Your task to perform on an android device: turn on bluetooth scan Image 0: 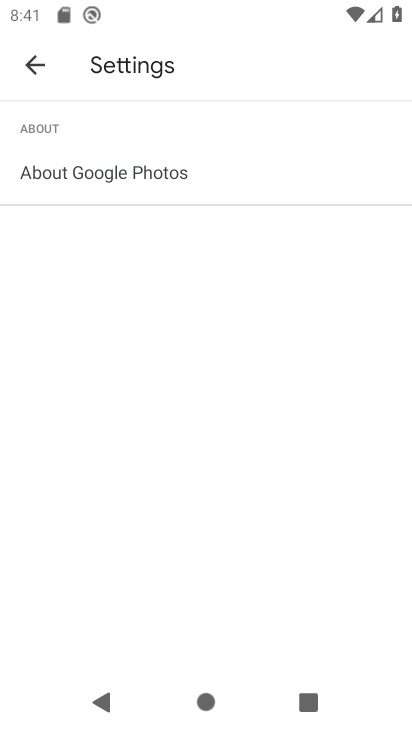
Step 0: press home button
Your task to perform on an android device: turn on bluetooth scan Image 1: 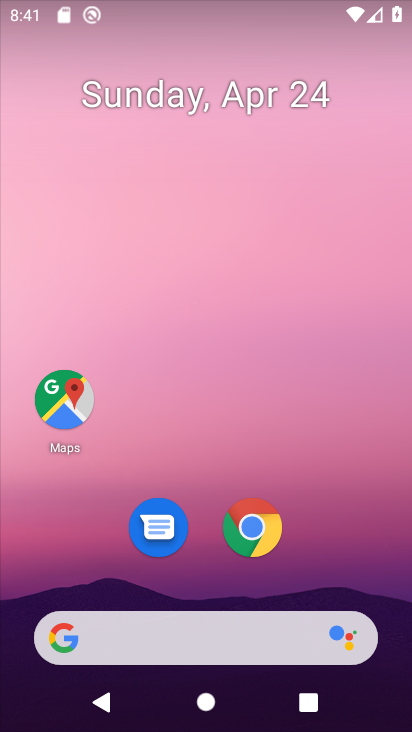
Step 1: drag from (393, 629) to (305, 201)
Your task to perform on an android device: turn on bluetooth scan Image 2: 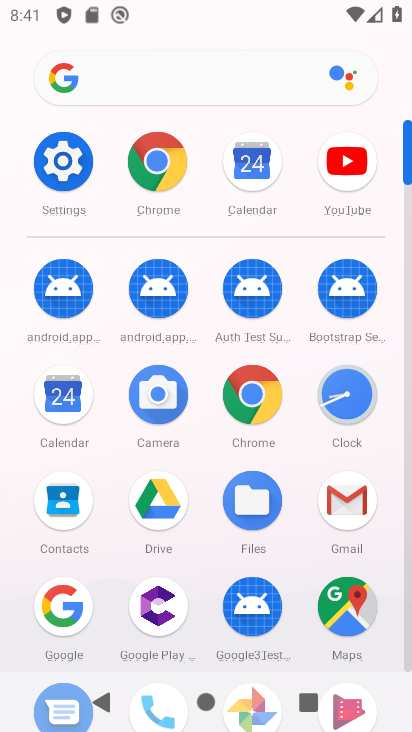
Step 2: click (66, 174)
Your task to perform on an android device: turn on bluetooth scan Image 3: 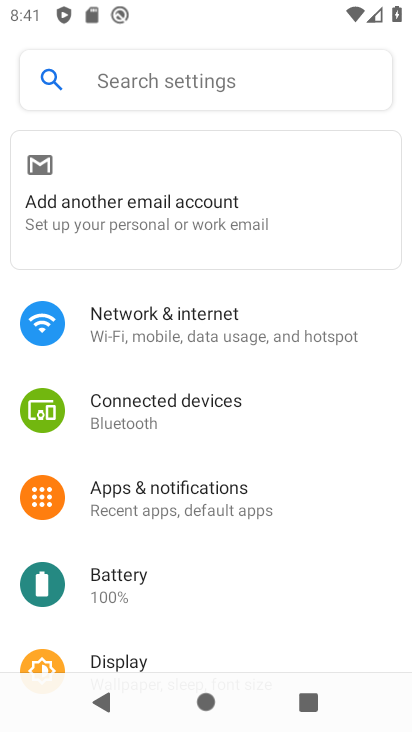
Step 3: drag from (166, 614) to (184, 213)
Your task to perform on an android device: turn on bluetooth scan Image 4: 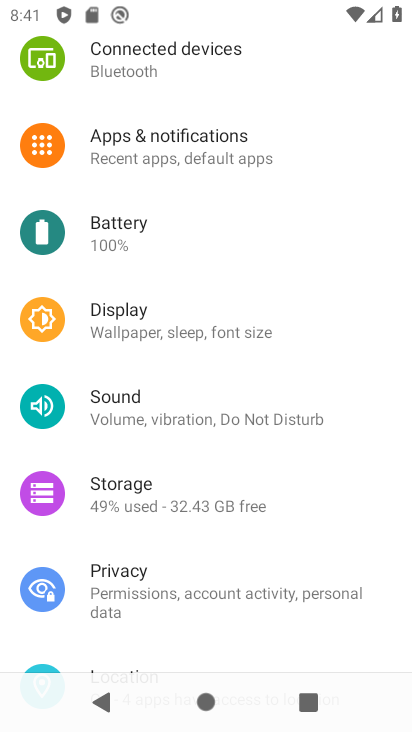
Step 4: drag from (200, 582) to (200, 230)
Your task to perform on an android device: turn on bluetooth scan Image 5: 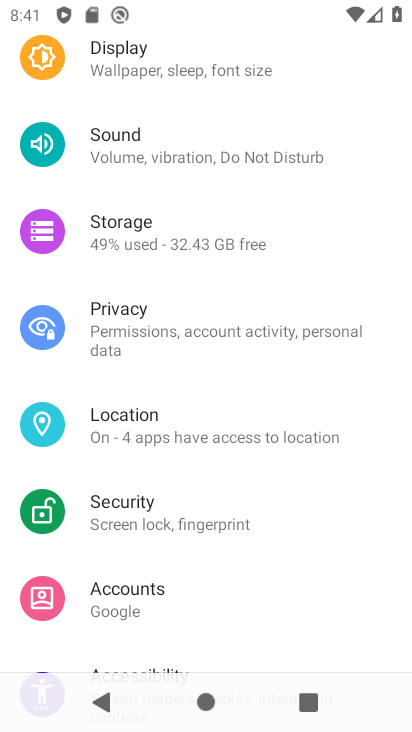
Step 5: click (150, 443)
Your task to perform on an android device: turn on bluetooth scan Image 6: 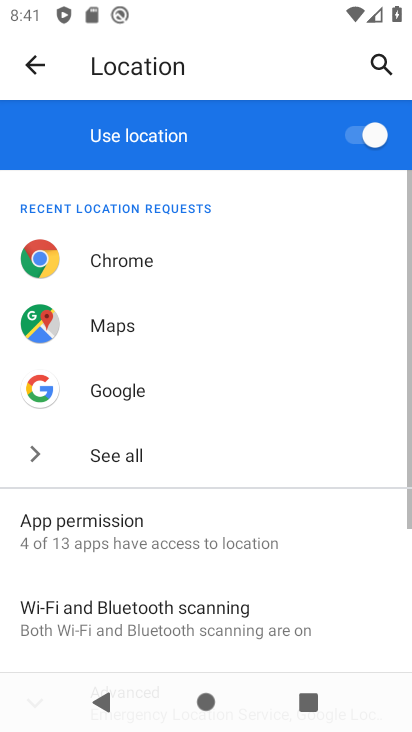
Step 6: click (186, 625)
Your task to perform on an android device: turn on bluetooth scan Image 7: 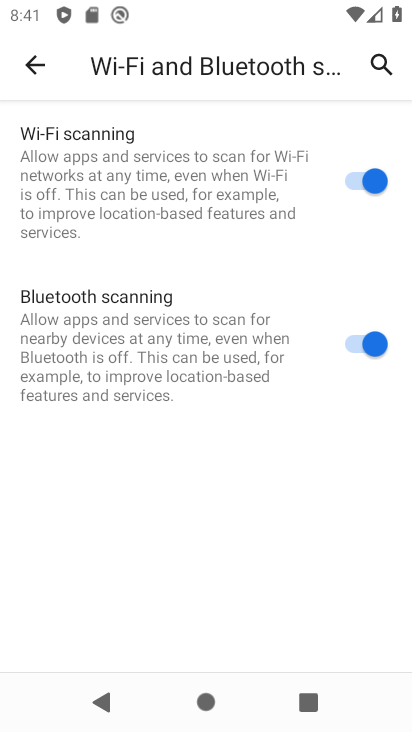
Step 7: task complete